Your task to perform on an android device: remove spam from my inbox in the gmail app Image 0: 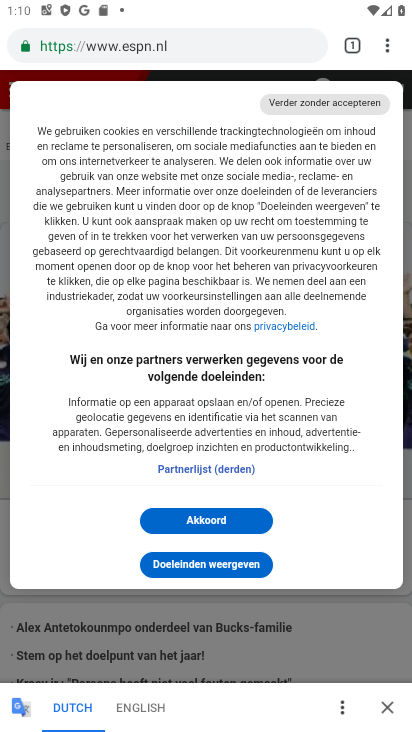
Step 0: press home button
Your task to perform on an android device: remove spam from my inbox in the gmail app Image 1: 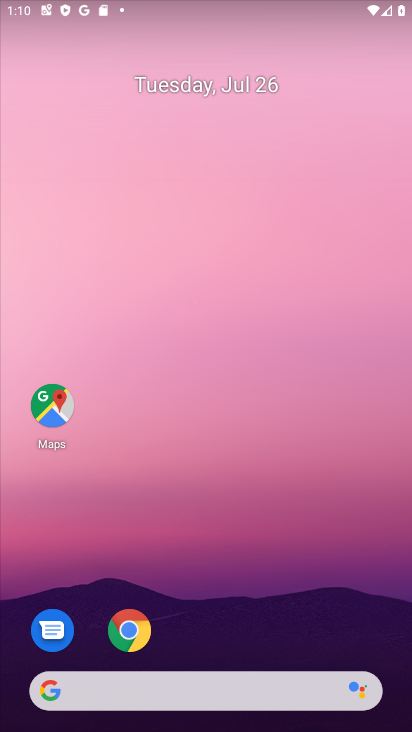
Step 1: drag from (250, 596) to (342, 1)
Your task to perform on an android device: remove spam from my inbox in the gmail app Image 2: 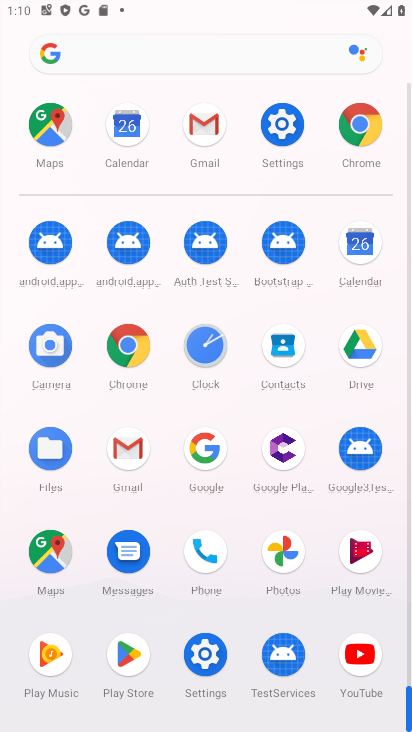
Step 2: click (216, 129)
Your task to perform on an android device: remove spam from my inbox in the gmail app Image 3: 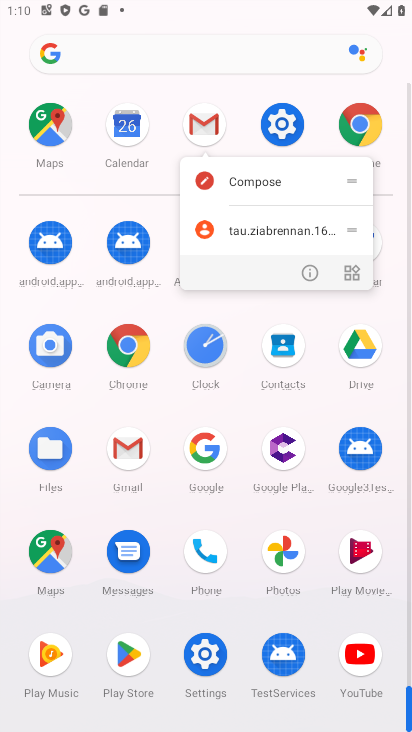
Step 3: click (216, 130)
Your task to perform on an android device: remove spam from my inbox in the gmail app Image 4: 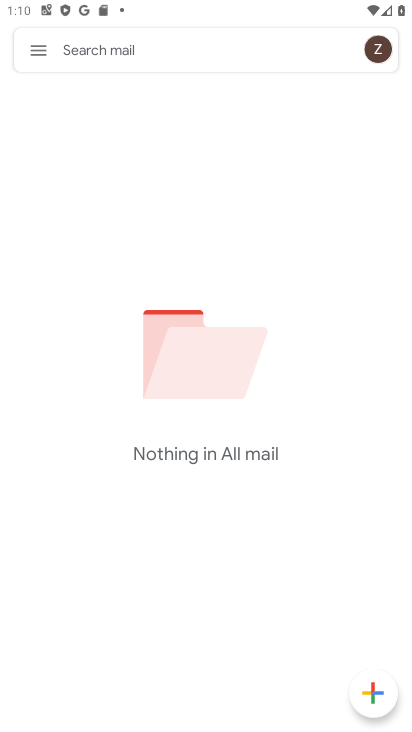
Step 4: click (50, 49)
Your task to perform on an android device: remove spam from my inbox in the gmail app Image 5: 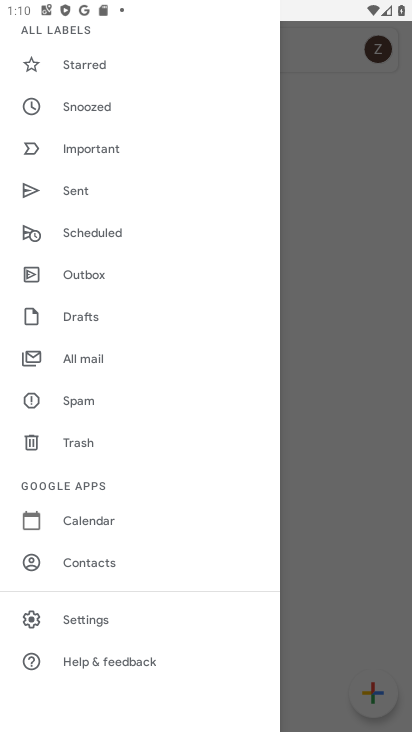
Step 5: click (56, 397)
Your task to perform on an android device: remove spam from my inbox in the gmail app Image 6: 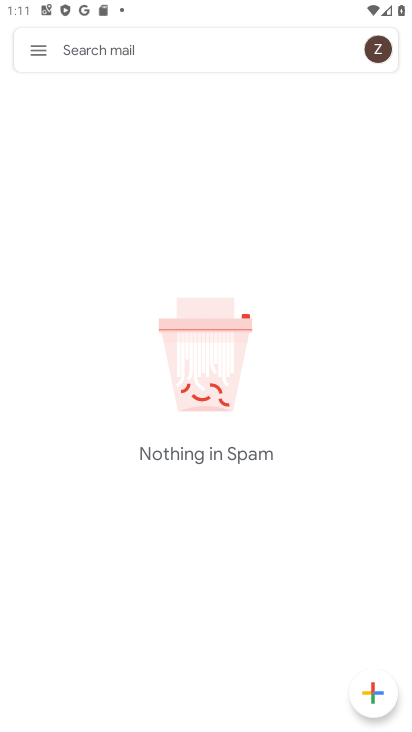
Step 6: click (35, 59)
Your task to perform on an android device: remove spam from my inbox in the gmail app Image 7: 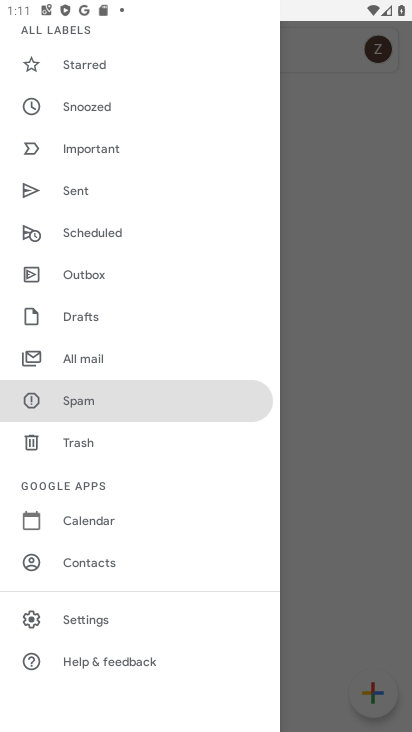
Step 7: click (45, 403)
Your task to perform on an android device: remove spam from my inbox in the gmail app Image 8: 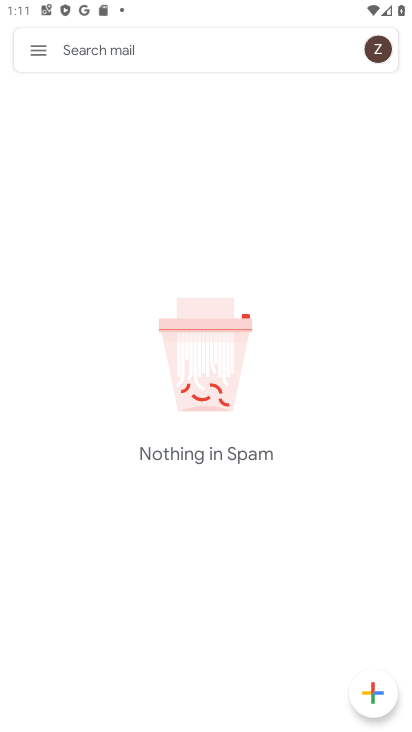
Step 8: task complete